Your task to perform on an android device: all mails in gmail Image 0: 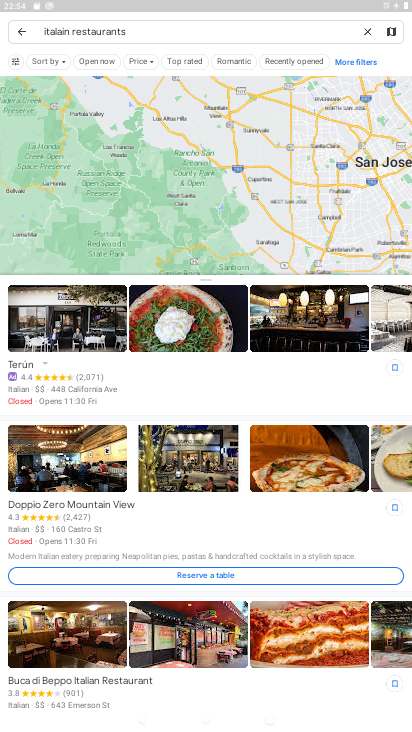
Step 0: press home button
Your task to perform on an android device: all mails in gmail Image 1: 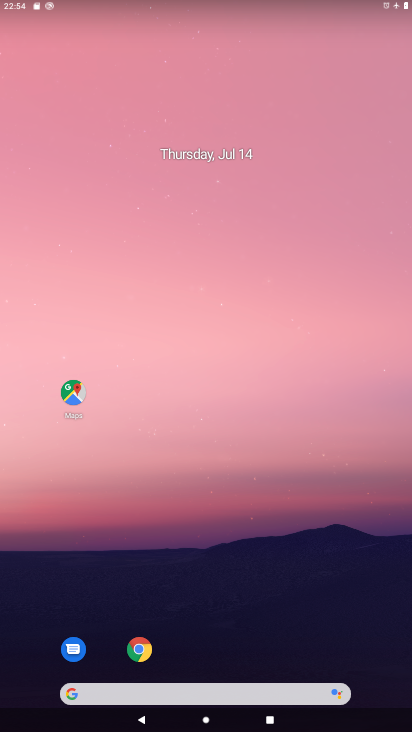
Step 1: drag from (174, 714) to (323, 140)
Your task to perform on an android device: all mails in gmail Image 2: 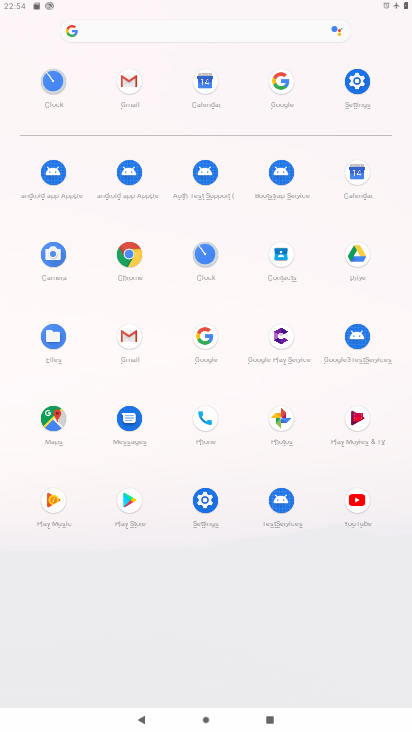
Step 2: click (125, 78)
Your task to perform on an android device: all mails in gmail Image 3: 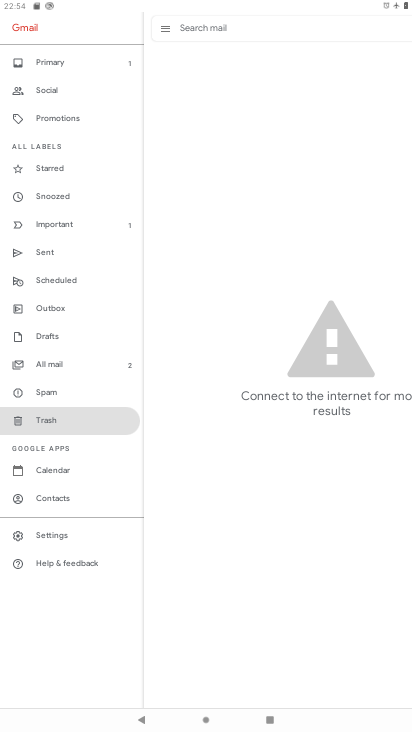
Step 3: click (74, 360)
Your task to perform on an android device: all mails in gmail Image 4: 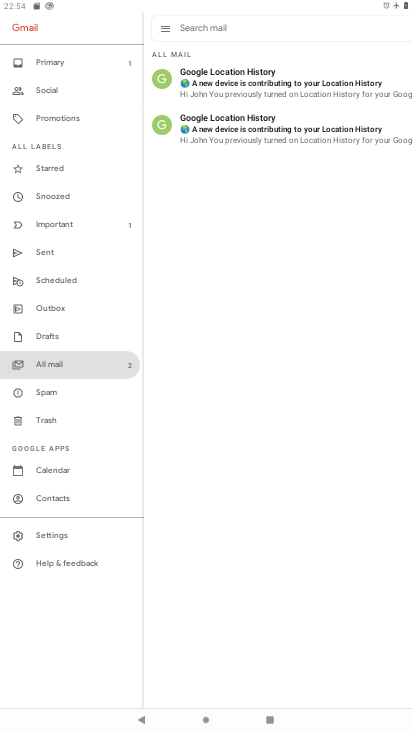
Step 4: task complete